Your task to perform on an android device: Open network settings Image 0: 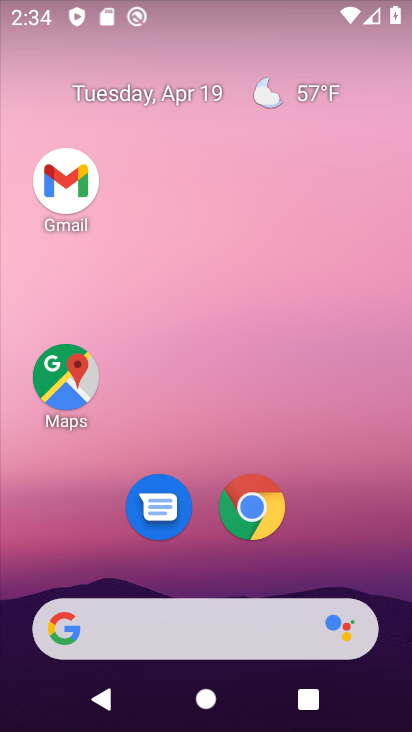
Step 0: drag from (255, 573) to (278, 112)
Your task to perform on an android device: Open network settings Image 1: 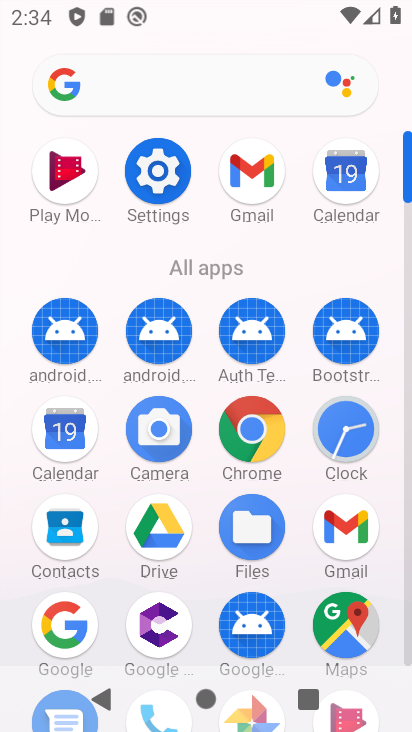
Step 1: click (162, 171)
Your task to perform on an android device: Open network settings Image 2: 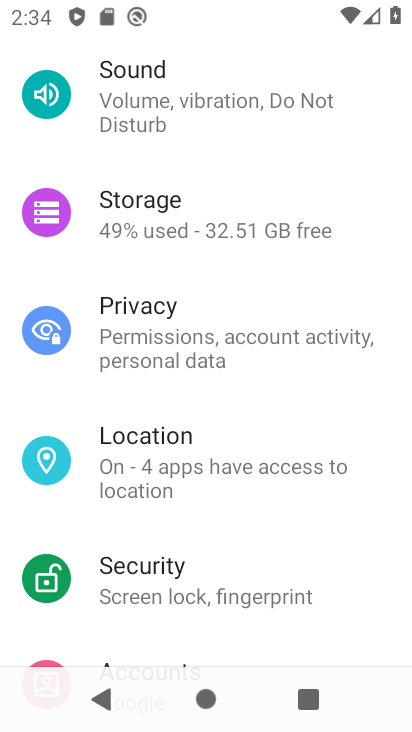
Step 2: drag from (272, 141) to (242, 546)
Your task to perform on an android device: Open network settings Image 3: 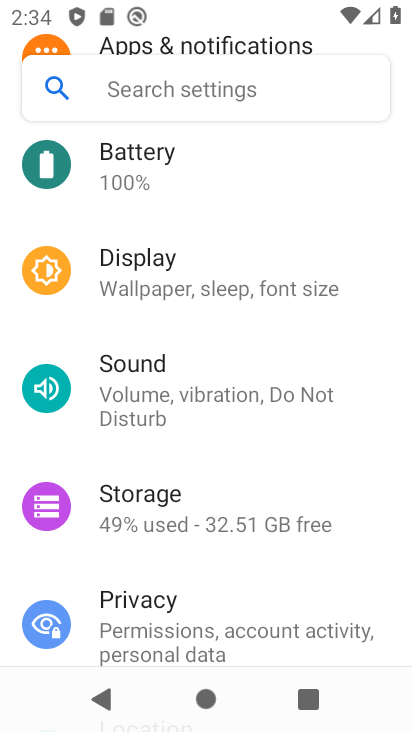
Step 3: drag from (263, 162) to (223, 541)
Your task to perform on an android device: Open network settings Image 4: 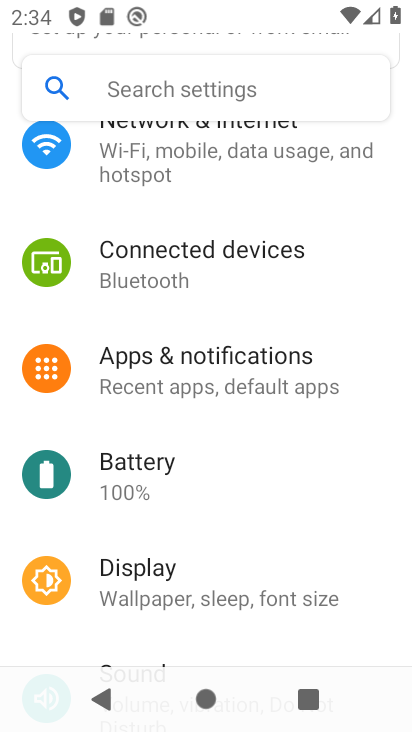
Step 4: click (212, 164)
Your task to perform on an android device: Open network settings Image 5: 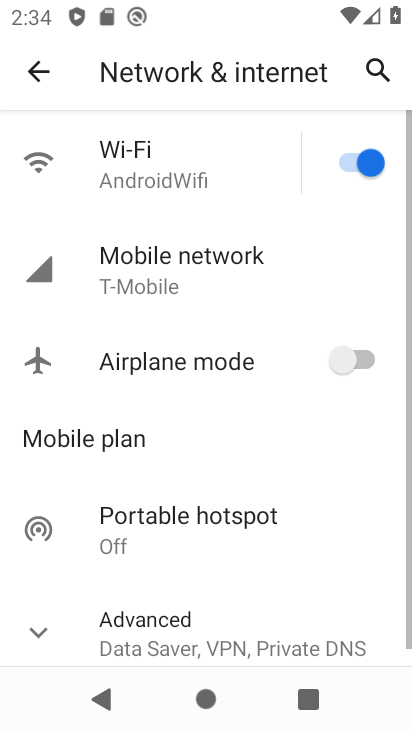
Step 5: click (186, 270)
Your task to perform on an android device: Open network settings Image 6: 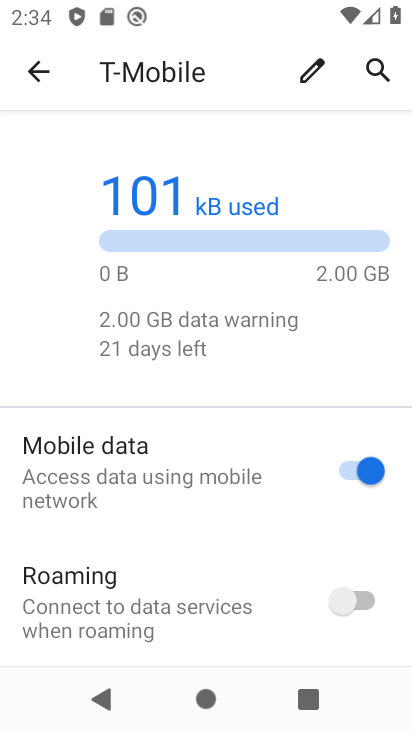
Step 6: task complete